Your task to perform on an android device: check google app version Image 0: 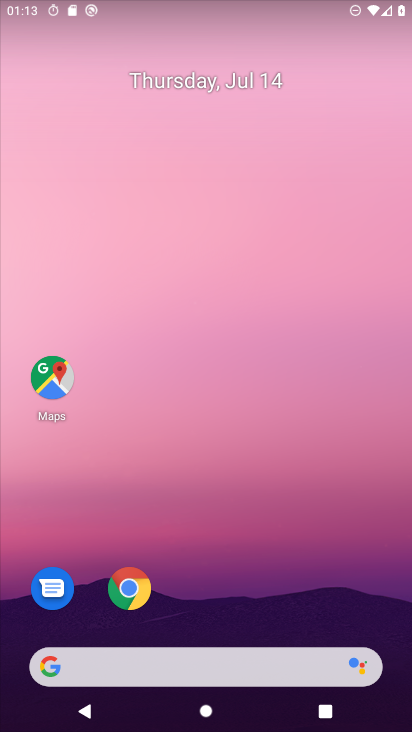
Step 0: drag from (210, 552) to (288, 70)
Your task to perform on an android device: check google app version Image 1: 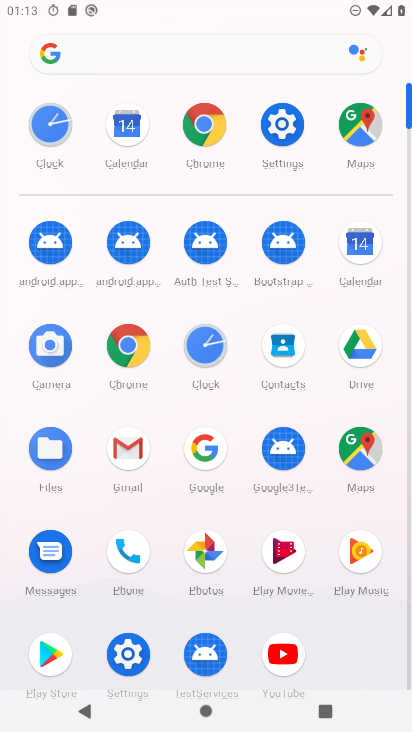
Step 1: drag from (203, 450) to (316, 200)
Your task to perform on an android device: check google app version Image 2: 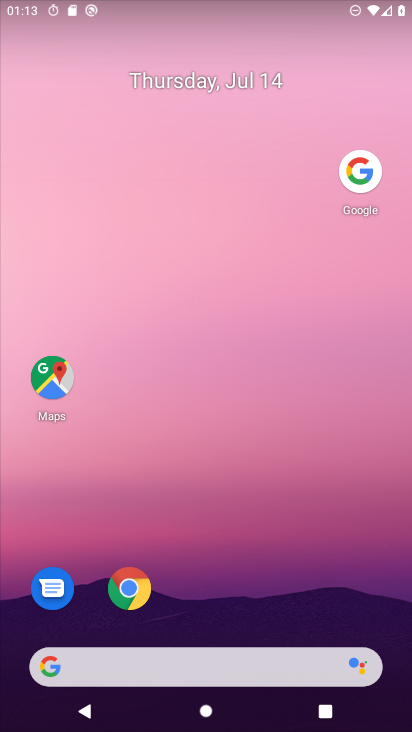
Step 2: drag from (359, 169) to (248, 379)
Your task to perform on an android device: check google app version Image 3: 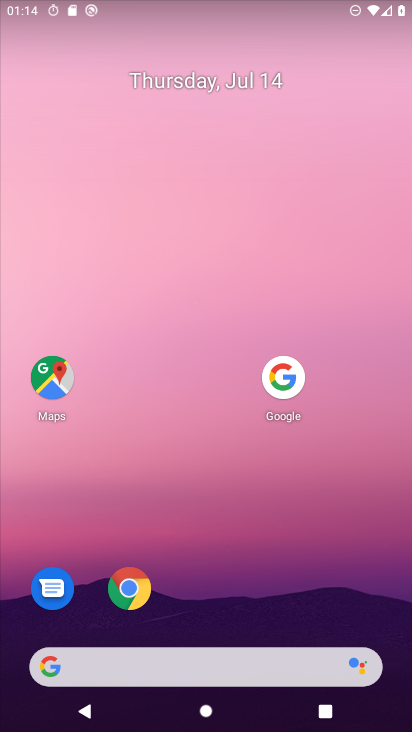
Step 3: click (278, 377)
Your task to perform on an android device: check google app version Image 4: 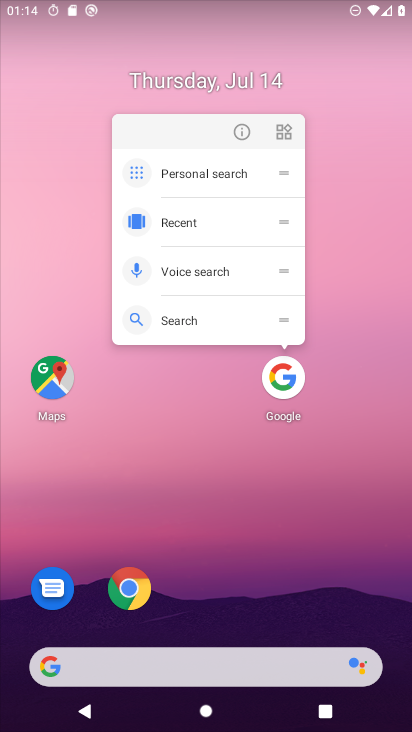
Step 4: click (243, 132)
Your task to perform on an android device: check google app version Image 5: 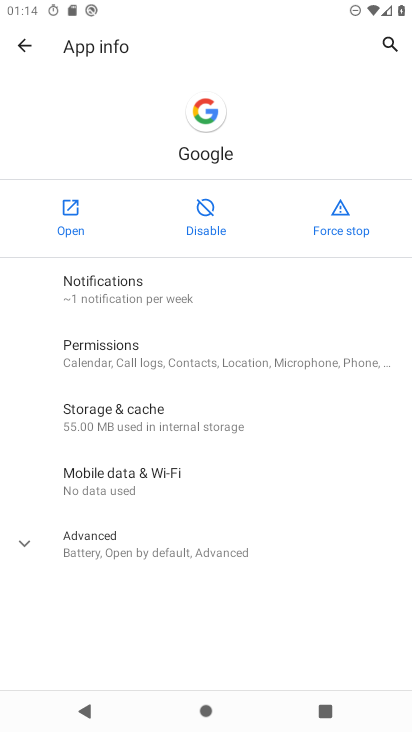
Step 5: drag from (225, 612) to (332, 230)
Your task to perform on an android device: check google app version Image 6: 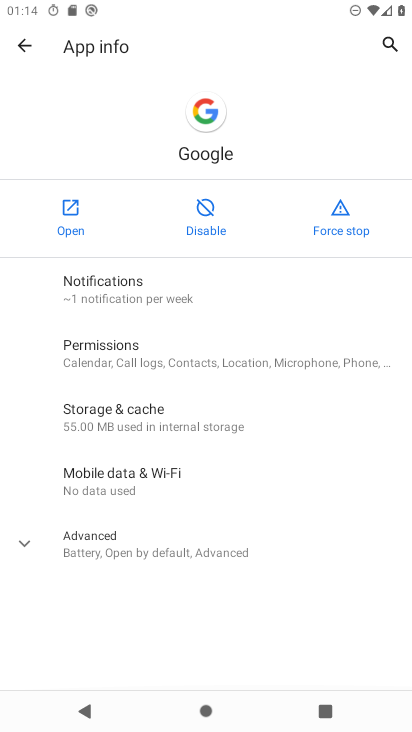
Step 6: click (140, 556)
Your task to perform on an android device: check google app version Image 7: 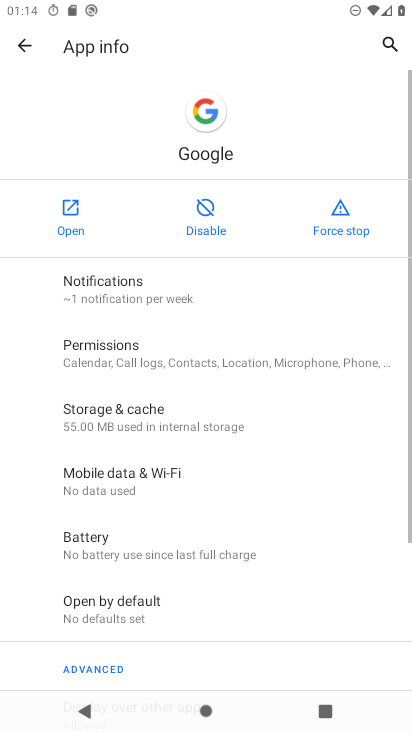
Step 7: task complete